Your task to perform on an android device: turn on data saver in the chrome app Image 0: 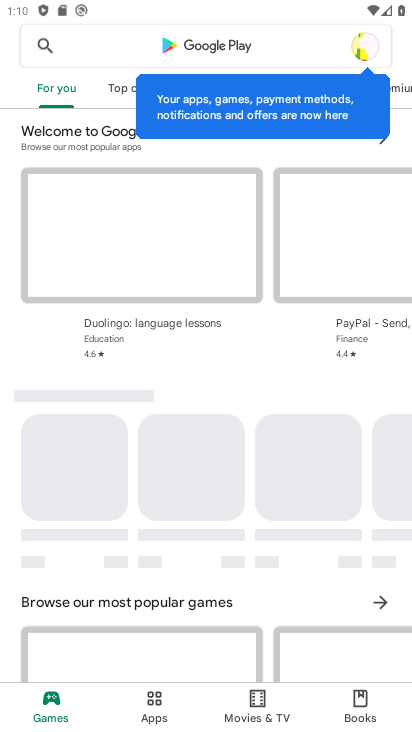
Step 0: press home button
Your task to perform on an android device: turn on data saver in the chrome app Image 1: 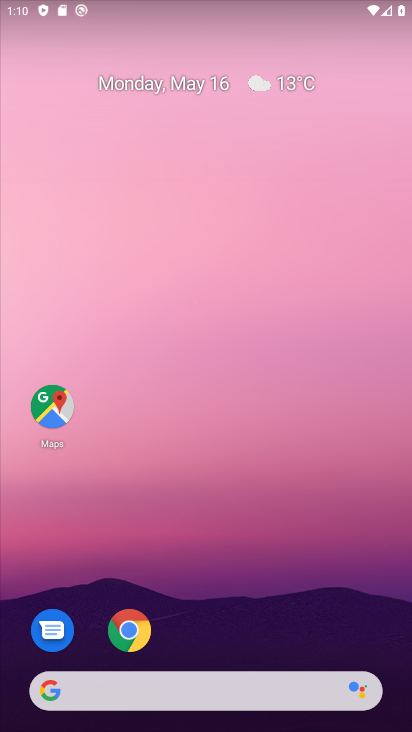
Step 1: click (135, 628)
Your task to perform on an android device: turn on data saver in the chrome app Image 2: 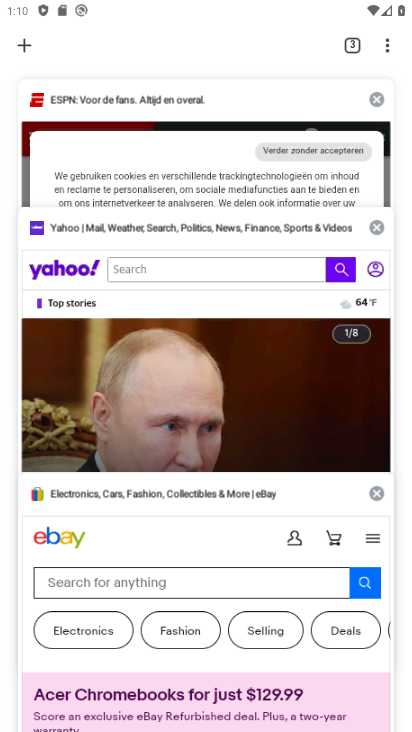
Step 2: click (135, 628)
Your task to perform on an android device: turn on data saver in the chrome app Image 3: 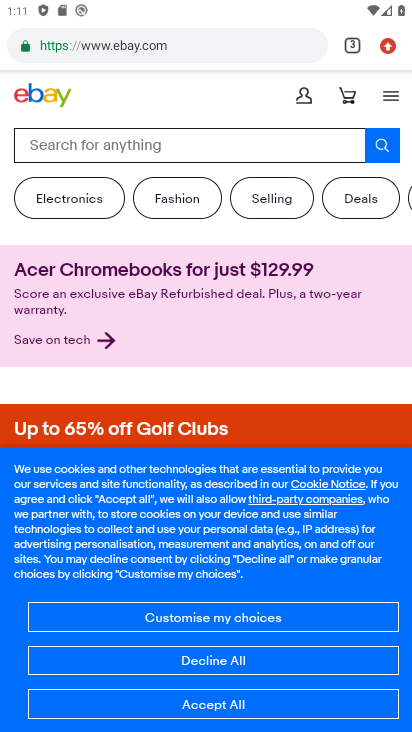
Step 3: click (244, 56)
Your task to perform on an android device: turn on data saver in the chrome app Image 4: 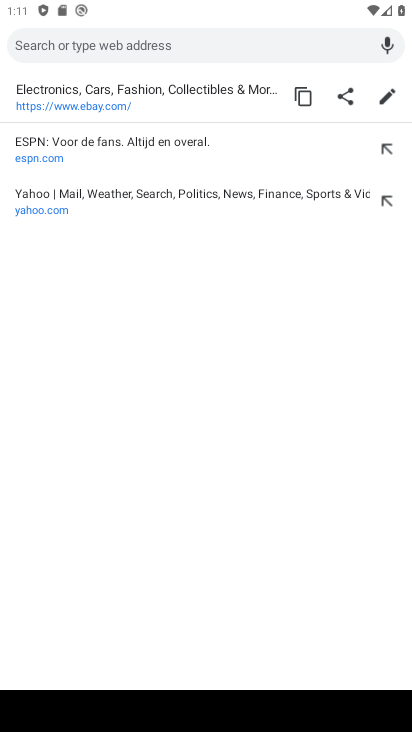
Step 4: click (247, 41)
Your task to perform on an android device: turn on data saver in the chrome app Image 5: 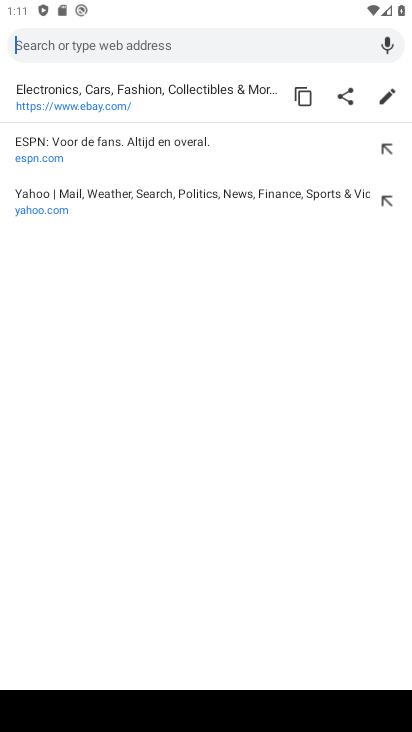
Step 5: press back button
Your task to perform on an android device: turn on data saver in the chrome app Image 6: 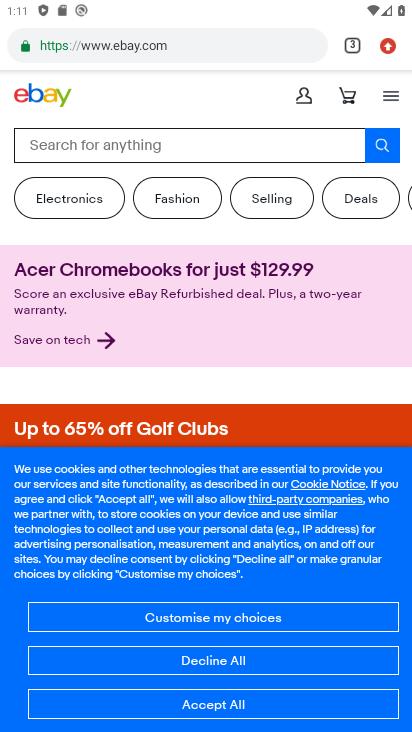
Step 6: click (355, 37)
Your task to perform on an android device: turn on data saver in the chrome app Image 7: 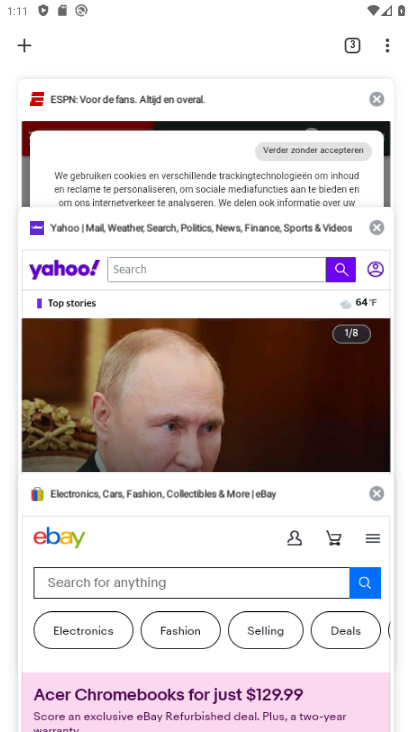
Step 7: click (351, 40)
Your task to perform on an android device: turn on data saver in the chrome app Image 8: 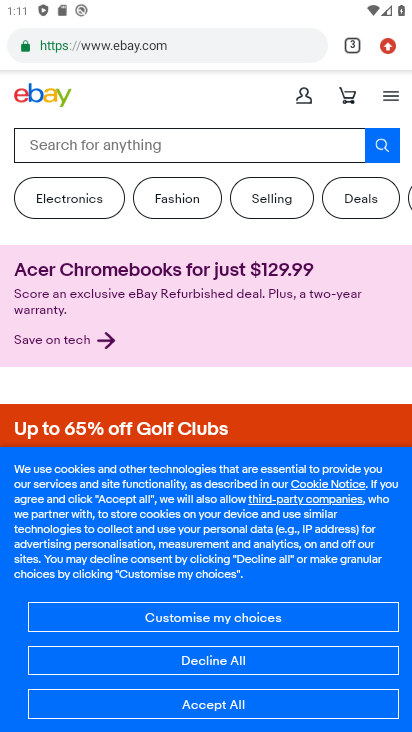
Step 8: click (347, 40)
Your task to perform on an android device: turn on data saver in the chrome app Image 9: 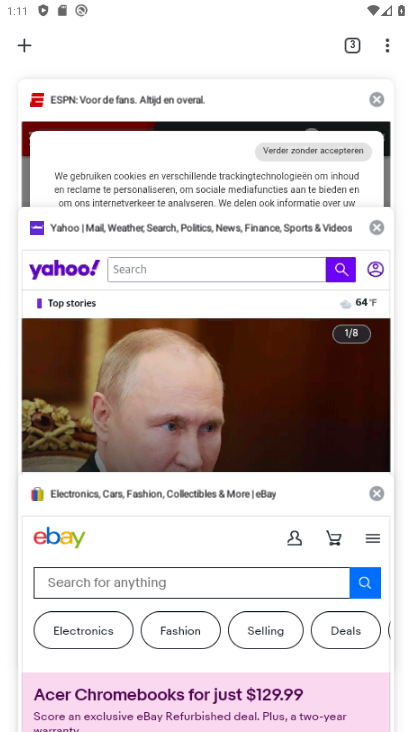
Step 9: click (385, 31)
Your task to perform on an android device: turn on data saver in the chrome app Image 10: 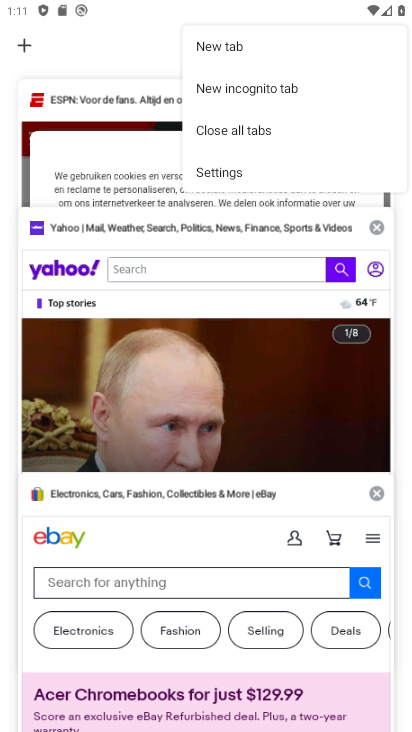
Step 10: click (275, 160)
Your task to perform on an android device: turn on data saver in the chrome app Image 11: 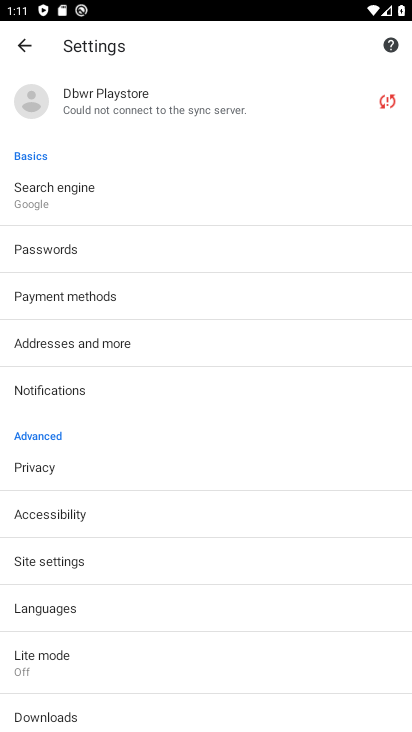
Step 11: drag from (165, 322) to (164, 162)
Your task to perform on an android device: turn on data saver in the chrome app Image 12: 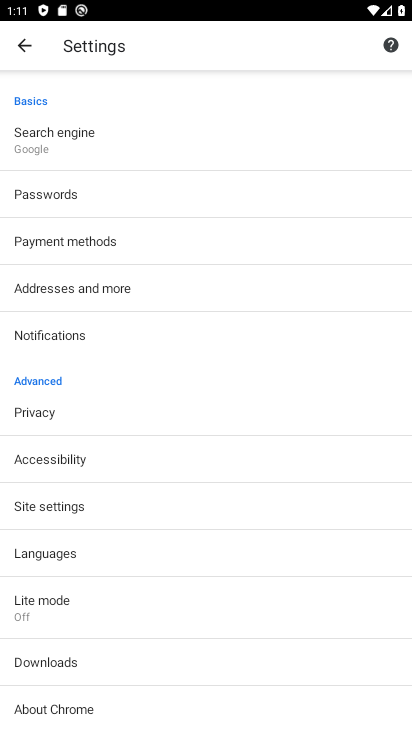
Step 12: click (162, 501)
Your task to perform on an android device: turn on data saver in the chrome app Image 13: 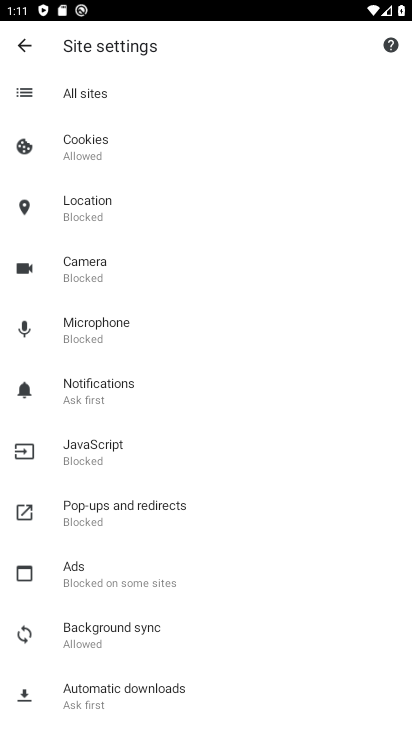
Step 13: drag from (230, 355) to (256, 81)
Your task to perform on an android device: turn on data saver in the chrome app Image 14: 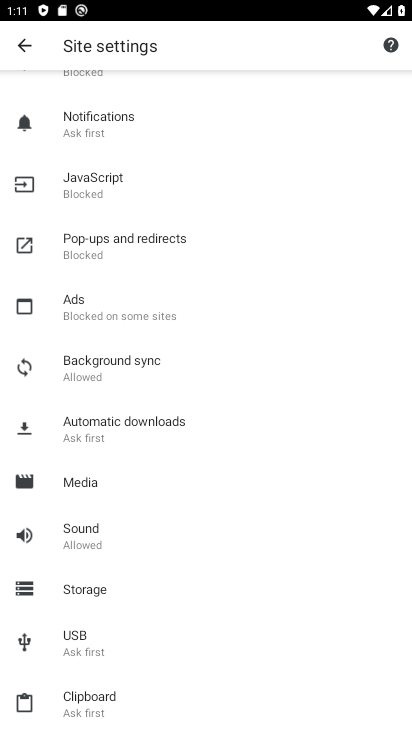
Step 14: drag from (250, 544) to (257, 115)
Your task to perform on an android device: turn on data saver in the chrome app Image 15: 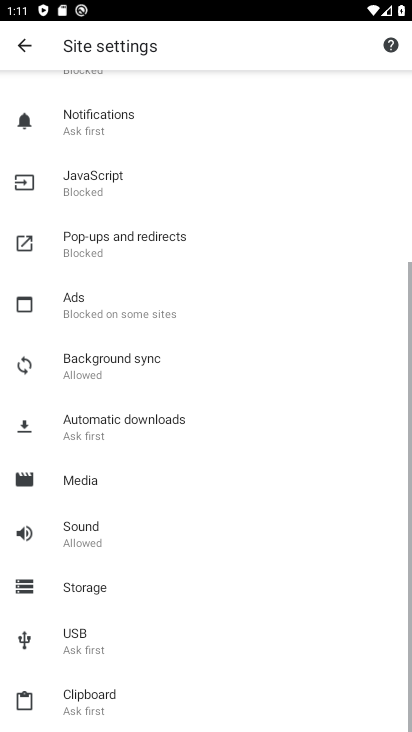
Step 15: drag from (262, 589) to (191, 96)
Your task to perform on an android device: turn on data saver in the chrome app Image 16: 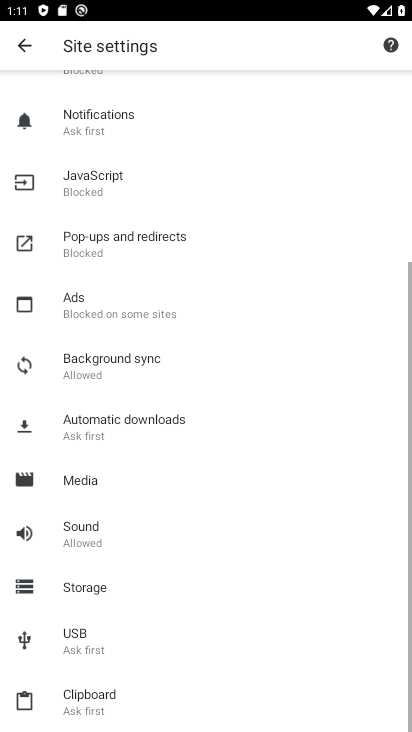
Step 16: drag from (308, 199) to (179, 675)
Your task to perform on an android device: turn on data saver in the chrome app Image 17: 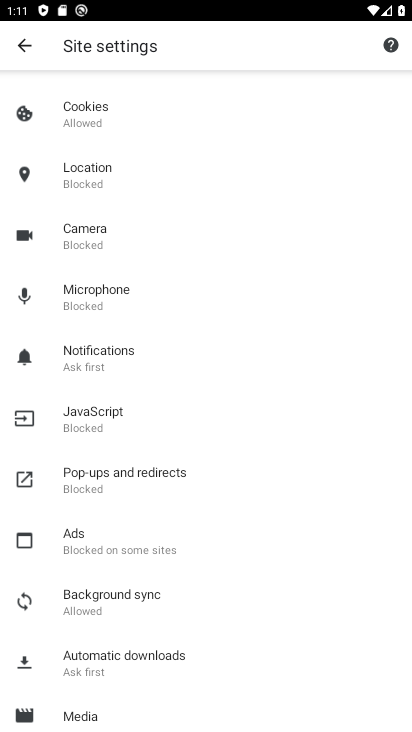
Step 17: press back button
Your task to perform on an android device: turn on data saver in the chrome app Image 18: 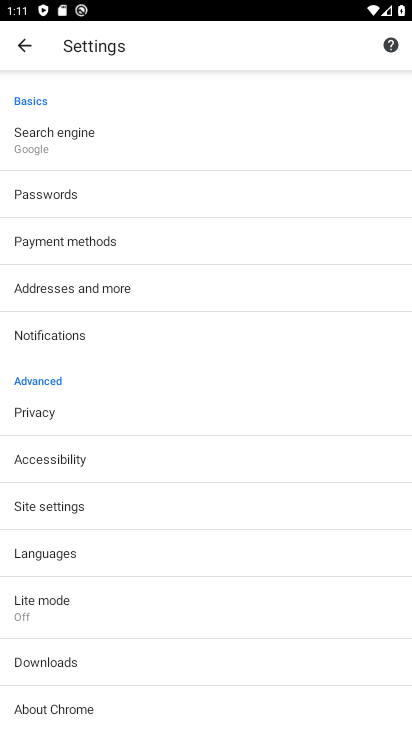
Step 18: drag from (213, 604) to (216, 245)
Your task to perform on an android device: turn on data saver in the chrome app Image 19: 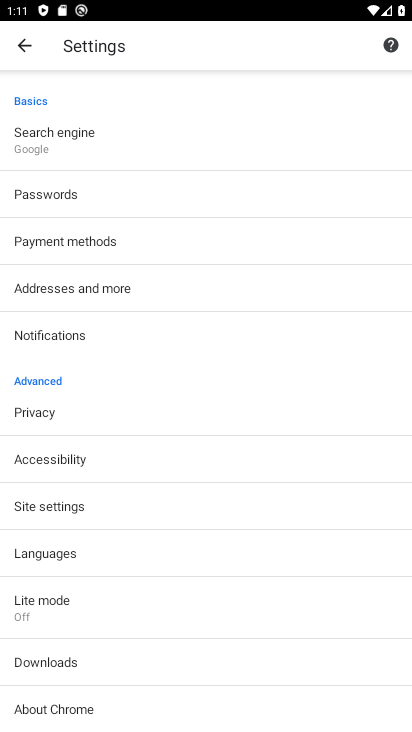
Step 19: click (203, 710)
Your task to perform on an android device: turn on data saver in the chrome app Image 20: 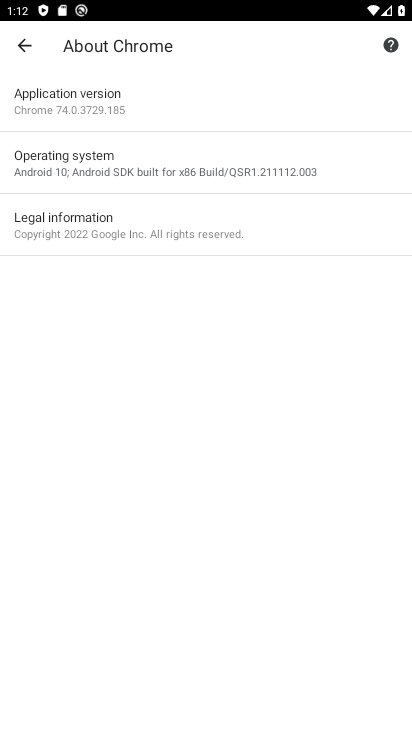
Step 20: press back button
Your task to perform on an android device: turn on data saver in the chrome app Image 21: 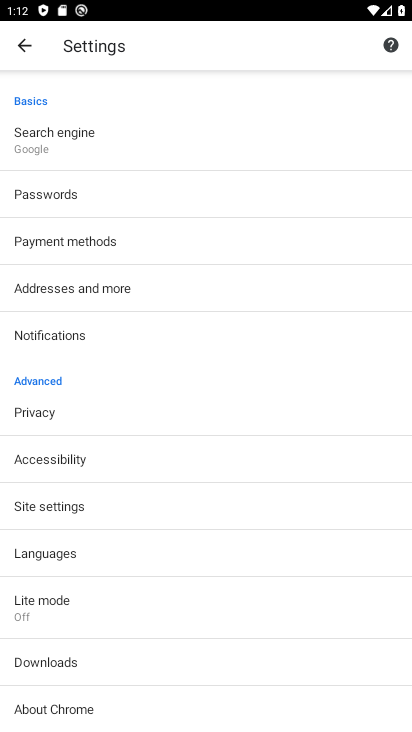
Step 21: drag from (155, 307) to (157, 120)
Your task to perform on an android device: turn on data saver in the chrome app Image 22: 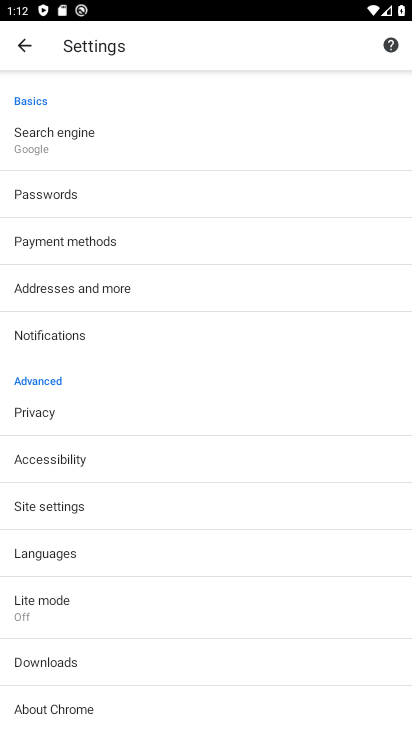
Step 22: click (85, 449)
Your task to perform on an android device: turn on data saver in the chrome app Image 23: 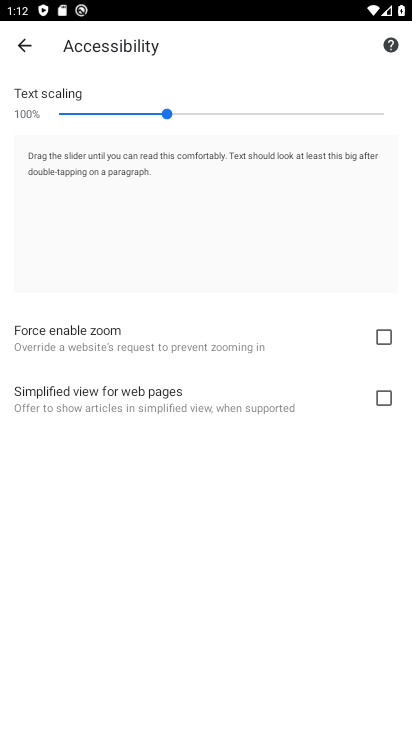
Step 23: task complete